Your task to perform on an android device: Open Maps and search for coffee Image 0: 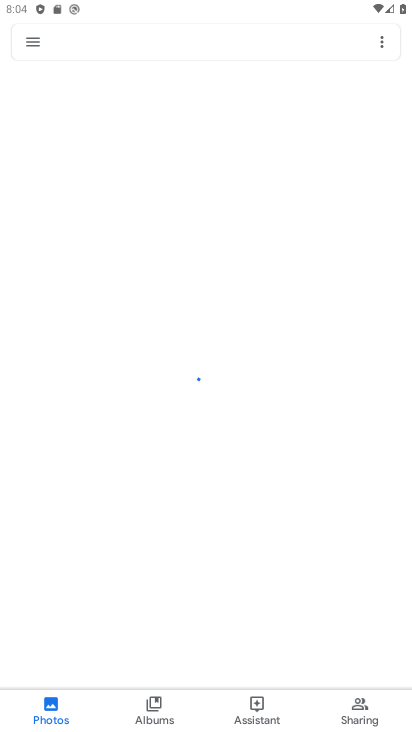
Step 0: press home button
Your task to perform on an android device: Open Maps and search for coffee Image 1: 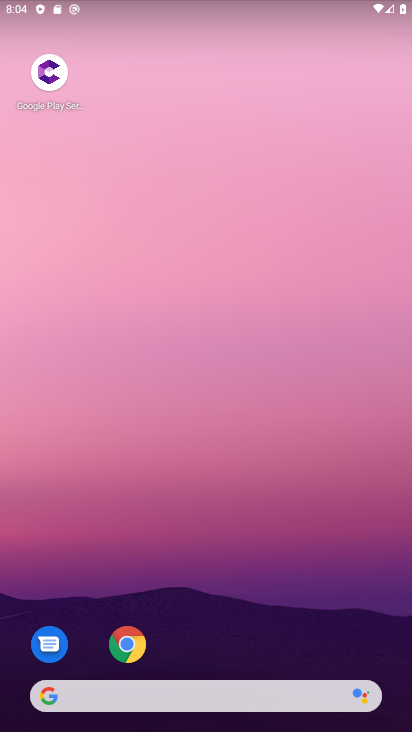
Step 1: drag from (174, 693) to (227, 294)
Your task to perform on an android device: Open Maps and search for coffee Image 2: 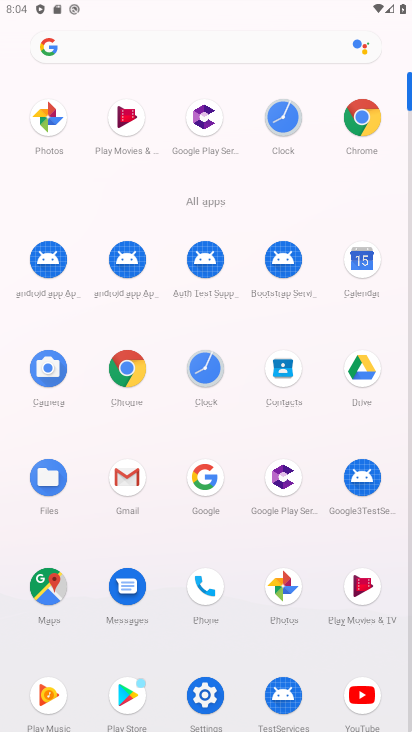
Step 2: click (53, 590)
Your task to perform on an android device: Open Maps and search for coffee Image 3: 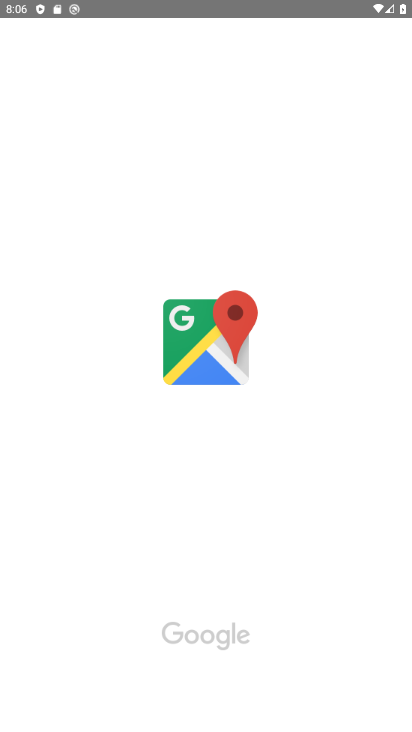
Step 3: task complete